Your task to perform on an android device: See recent photos Image 0: 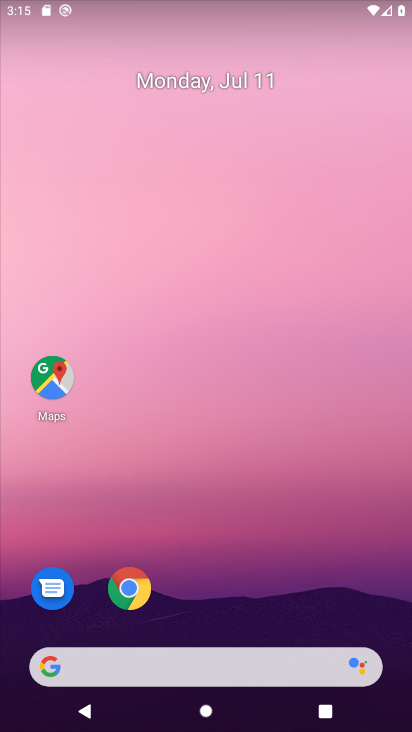
Step 0: press home button
Your task to perform on an android device: See recent photos Image 1: 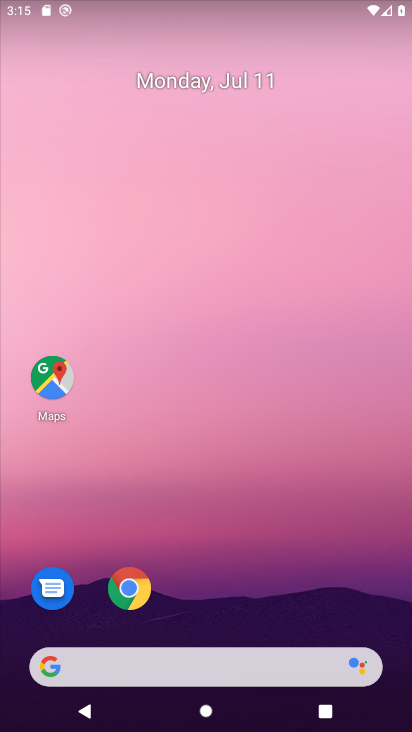
Step 1: drag from (243, 719) to (239, 10)
Your task to perform on an android device: See recent photos Image 2: 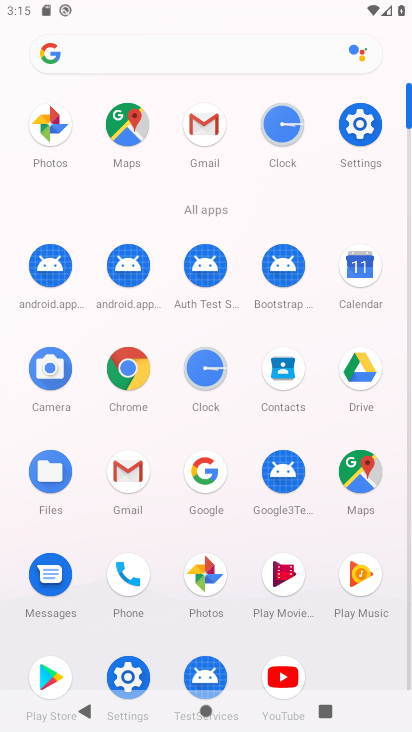
Step 2: click (206, 577)
Your task to perform on an android device: See recent photos Image 3: 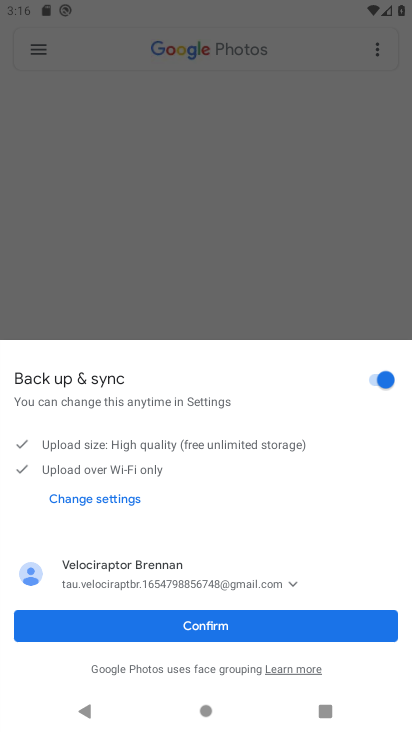
Step 3: click (218, 628)
Your task to perform on an android device: See recent photos Image 4: 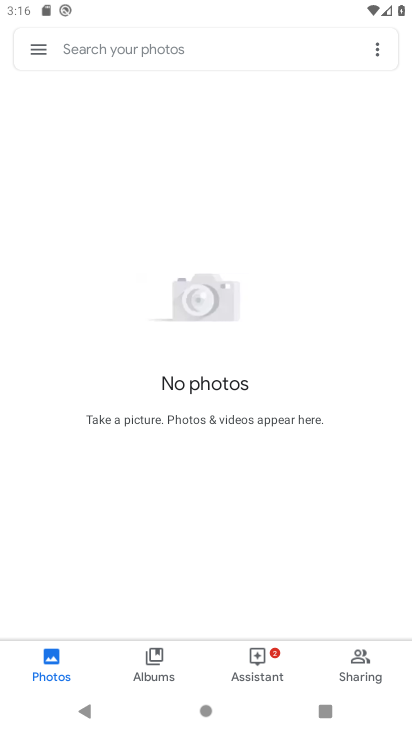
Step 4: task complete